Your task to perform on an android device: Open notification settings Image 0: 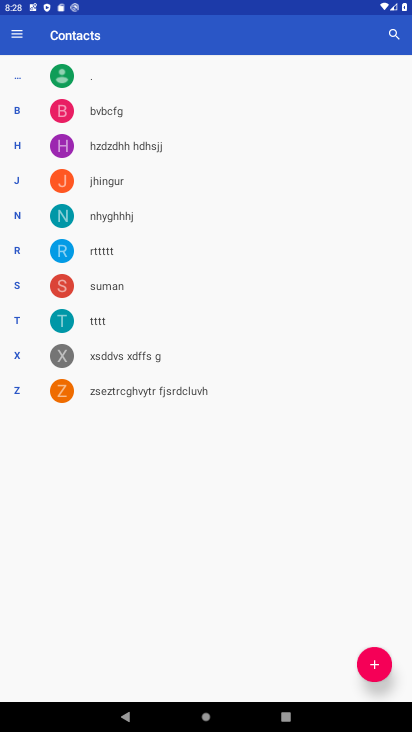
Step 0: press home button
Your task to perform on an android device: Open notification settings Image 1: 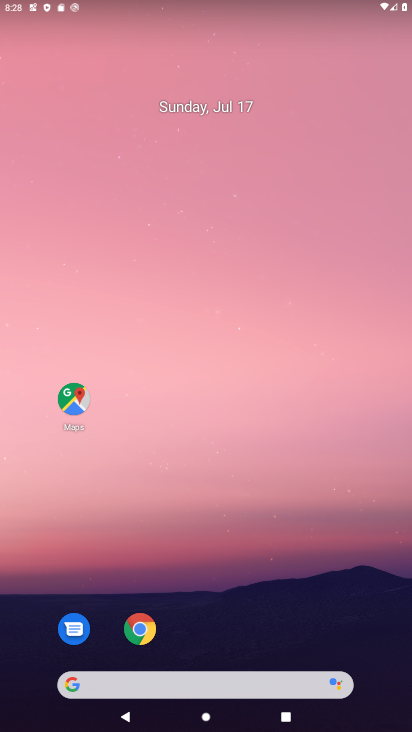
Step 1: drag from (179, 715) to (154, 126)
Your task to perform on an android device: Open notification settings Image 2: 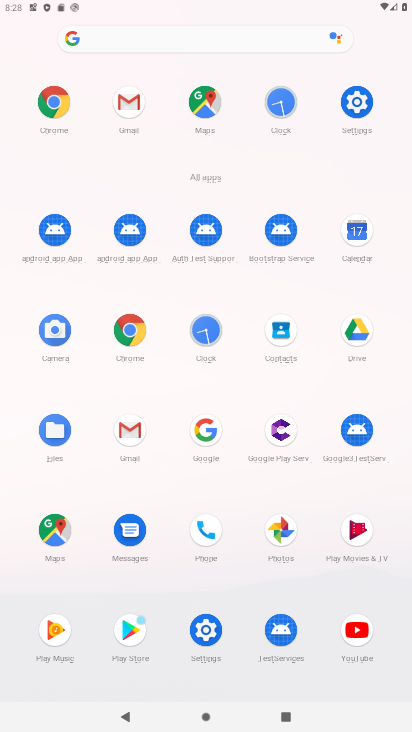
Step 2: click (363, 106)
Your task to perform on an android device: Open notification settings Image 3: 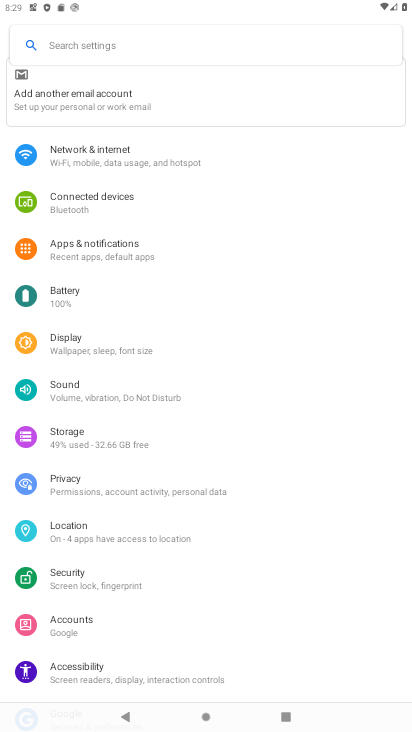
Step 3: click (93, 245)
Your task to perform on an android device: Open notification settings Image 4: 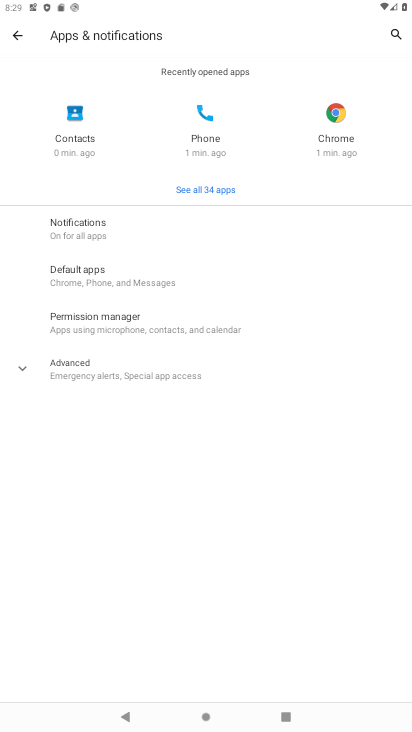
Step 4: click (88, 217)
Your task to perform on an android device: Open notification settings Image 5: 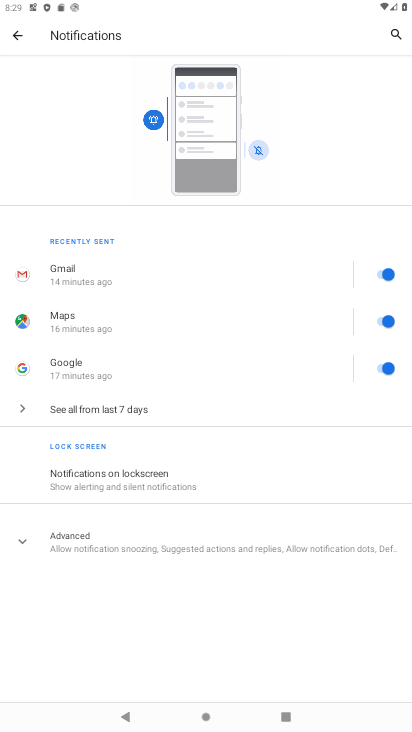
Step 5: task complete